Your task to perform on an android device: Open display settings Image 0: 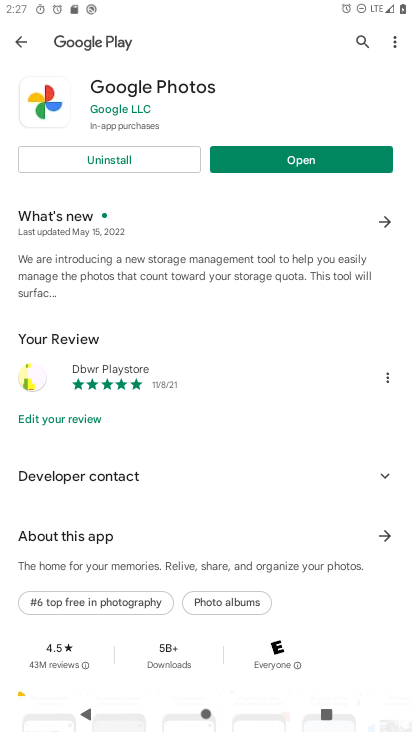
Step 0: press home button
Your task to perform on an android device: Open display settings Image 1: 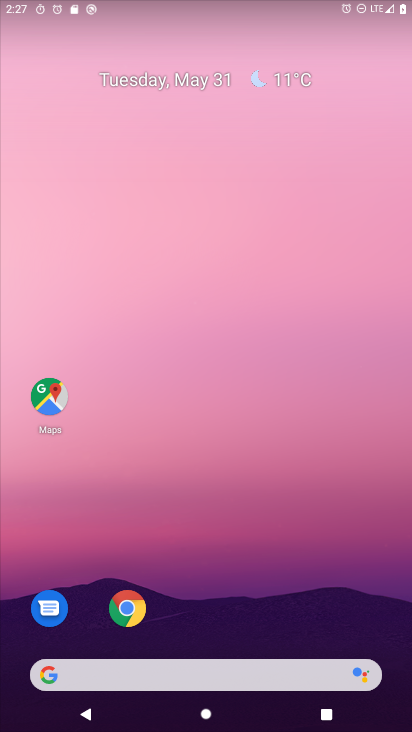
Step 1: drag from (235, 648) to (258, 7)
Your task to perform on an android device: Open display settings Image 2: 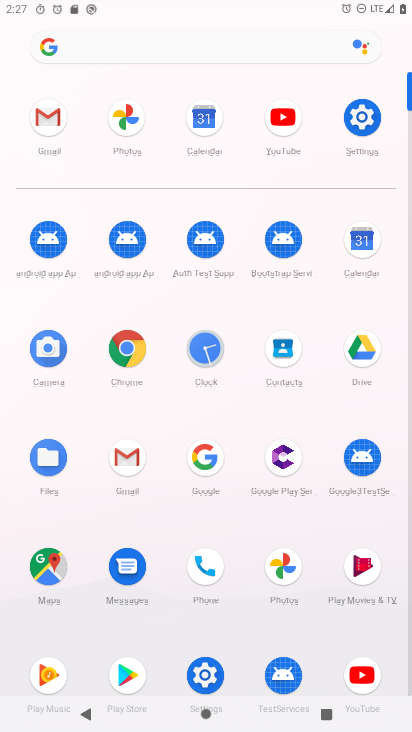
Step 2: click (358, 118)
Your task to perform on an android device: Open display settings Image 3: 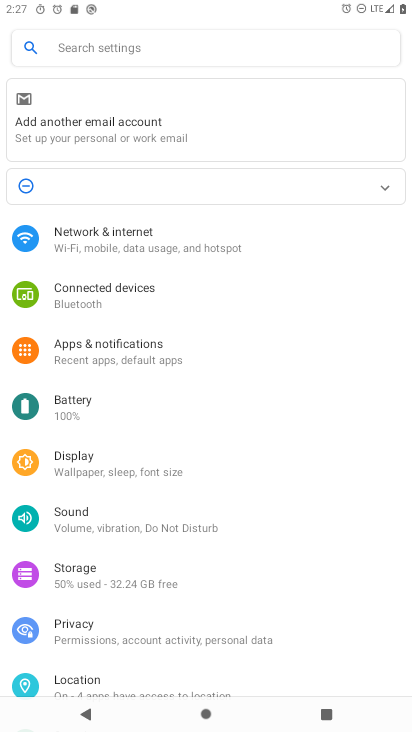
Step 3: click (93, 451)
Your task to perform on an android device: Open display settings Image 4: 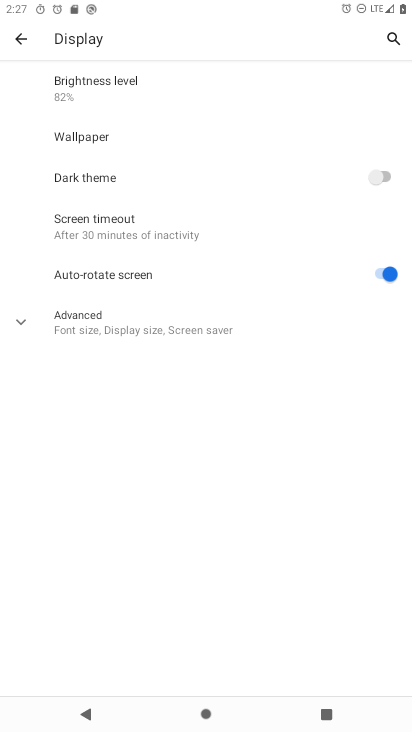
Step 4: click (22, 329)
Your task to perform on an android device: Open display settings Image 5: 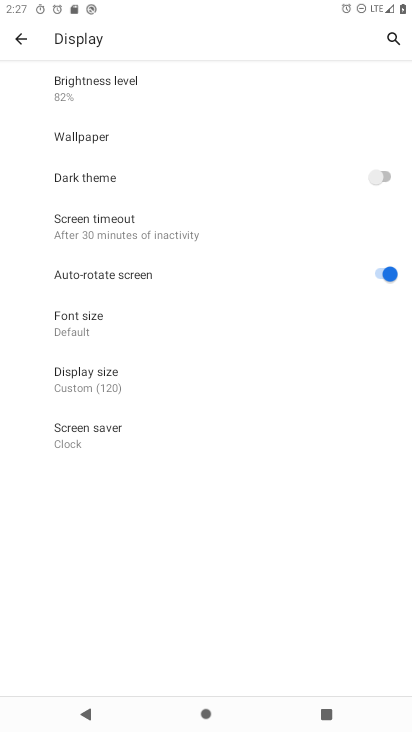
Step 5: task complete